Your task to perform on an android device: toggle sleep mode Image 0: 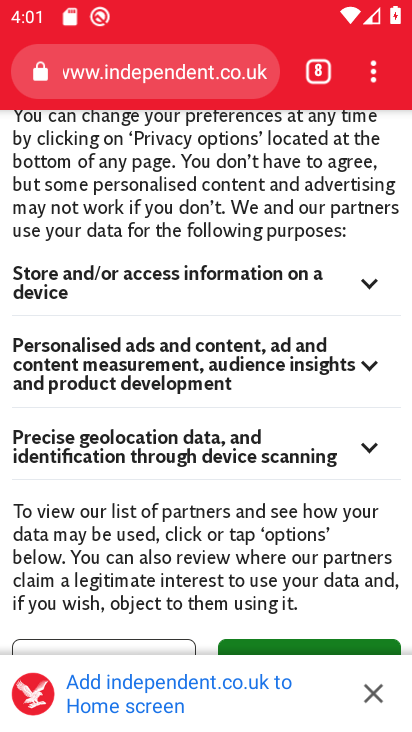
Step 0: press home button
Your task to perform on an android device: toggle sleep mode Image 1: 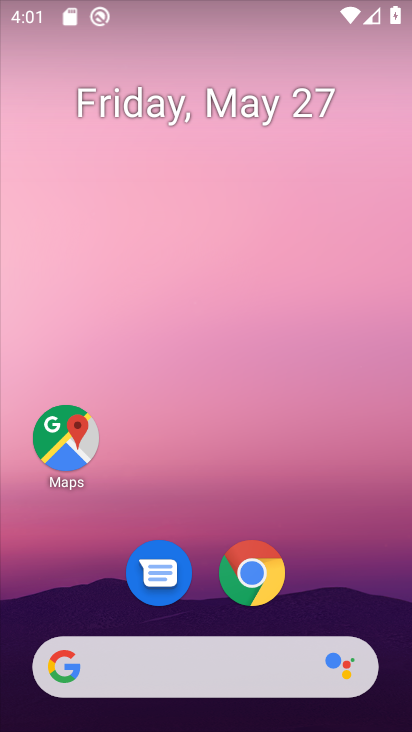
Step 1: drag from (314, 544) to (284, 36)
Your task to perform on an android device: toggle sleep mode Image 2: 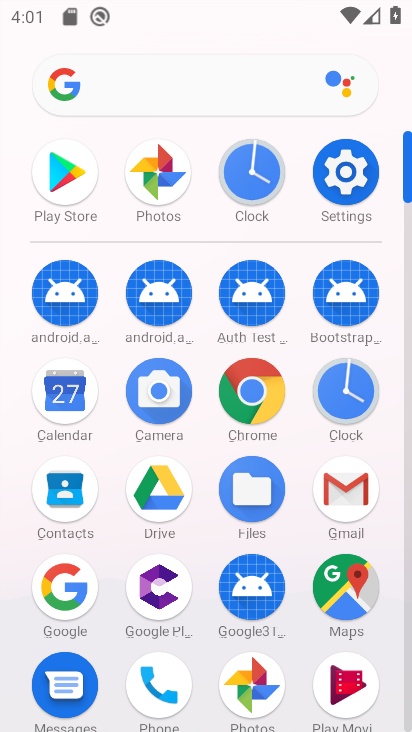
Step 2: click (337, 169)
Your task to perform on an android device: toggle sleep mode Image 3: 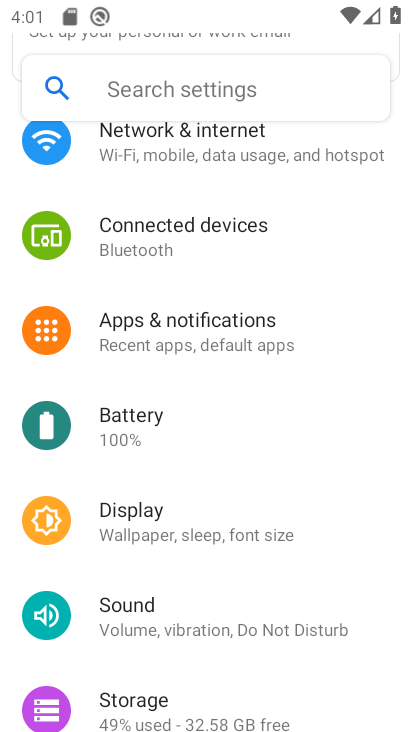
Step 3: click (246, 524)
Your task to perform on an android device: toggle sleep mode Image 4: 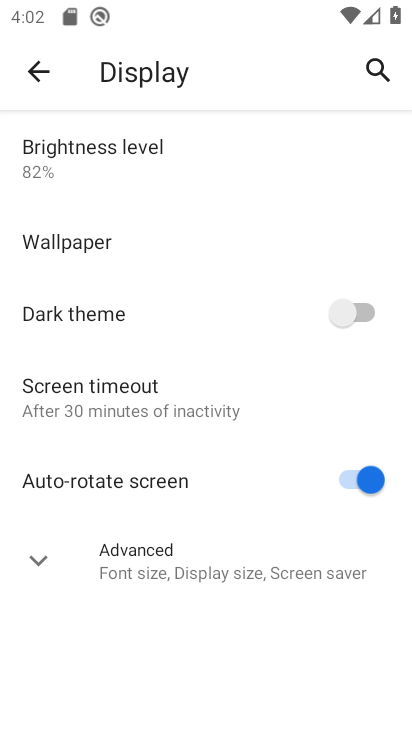
Step 4: task complete